Your task to perform on an android device: change notification settings in the gmail app Image 0: 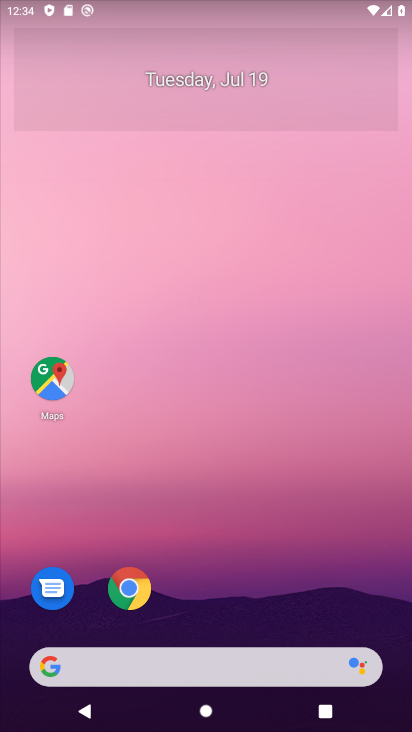
Step 0: drag from (351, 618) to (358, 38)
Your task to perform on an android device: change notification settings in the gmail app Image 1: 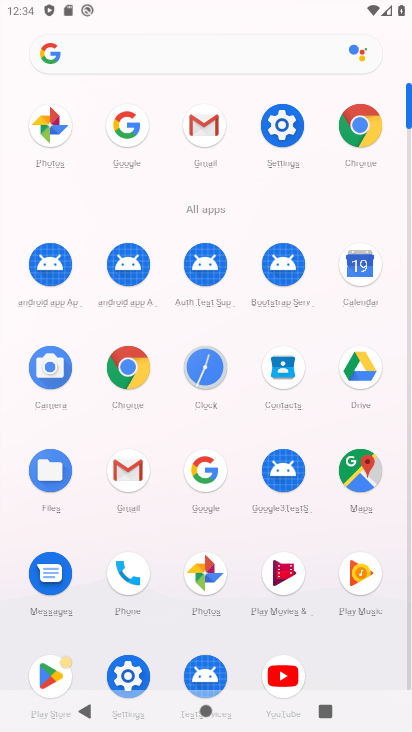
Step 1: click (220, 125)
Your task to perform on an android device: change notification settings in the gmail app Image 2: 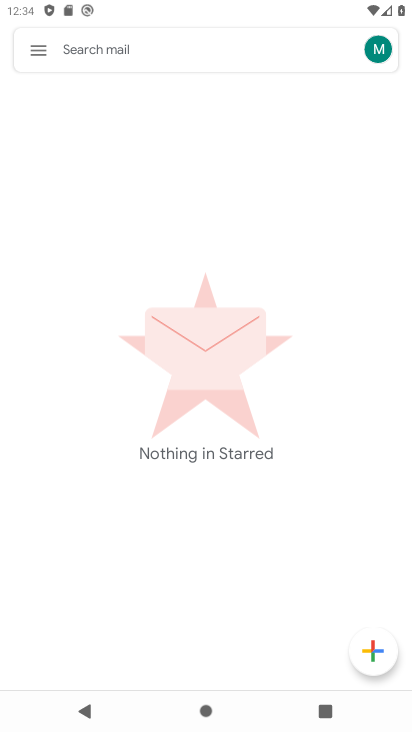
Step 2: click (40, 58)
Your task to perform on an android device: change notification settings in the gmail app Image 3: 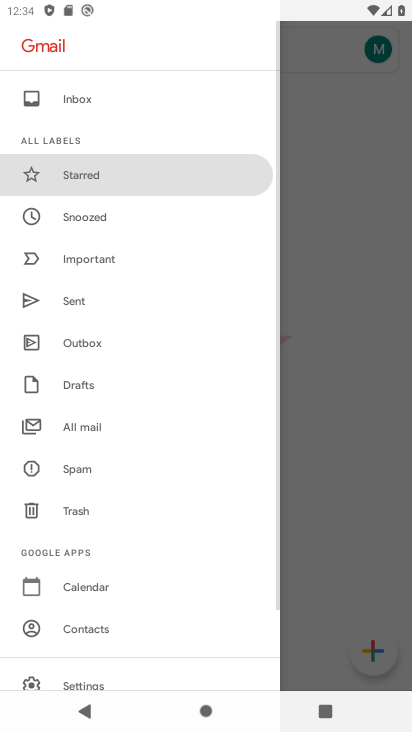
Step 3: drag from (140, 569) to (140, 58)
Your task to perform on an android device: change notification settings in the gmail app Image 4: 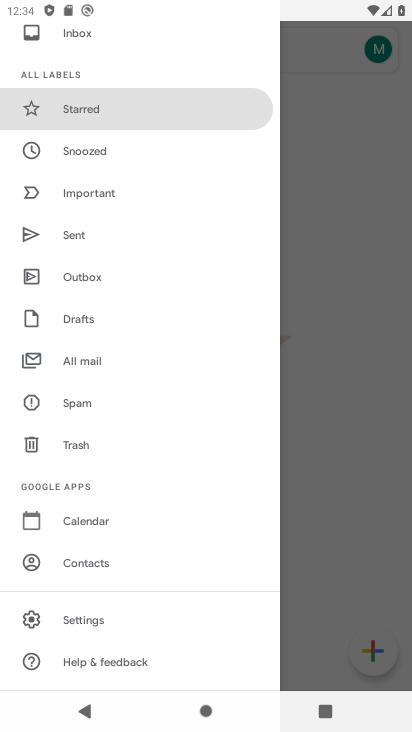
Step 4: click (80, 632)
Your task to perform on an android device: change notification settings in the gmail app Image 5: 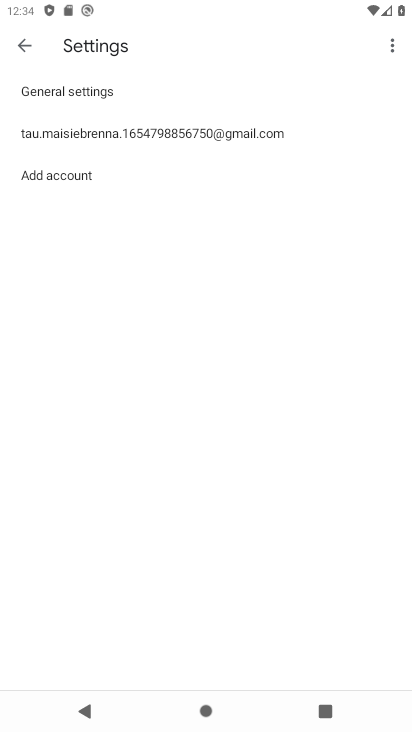
Step 5: click (84, 139)
Your task to perform on an android device: change notification settings in the gmail app Image 6: 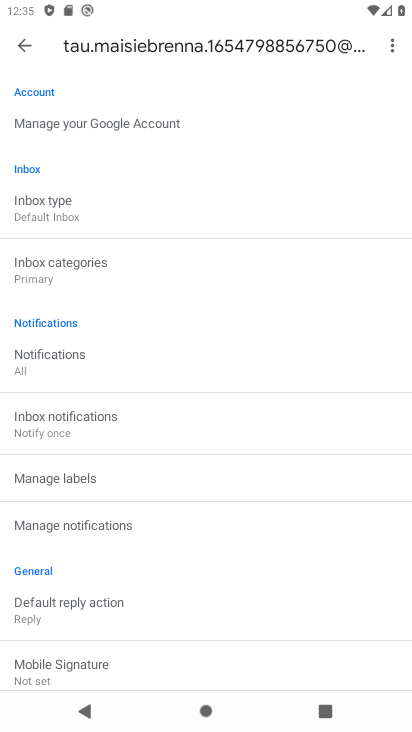
Step 6: click (69, 367)
Your task to perform on an android device: change notification settings in the gmail app Image 7: 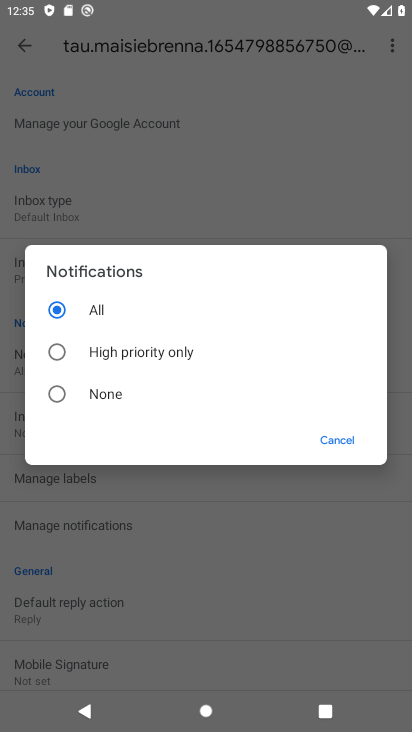
Step 7: click (57, 347)
Your task to perform on an android device: change notification settings in the gmail app Image 8: 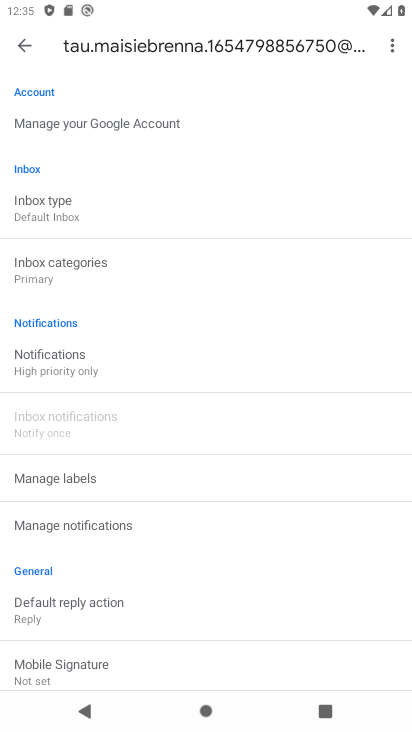
Step 8: task complete